Your task to perform on an android device: Open network settings Image 0: 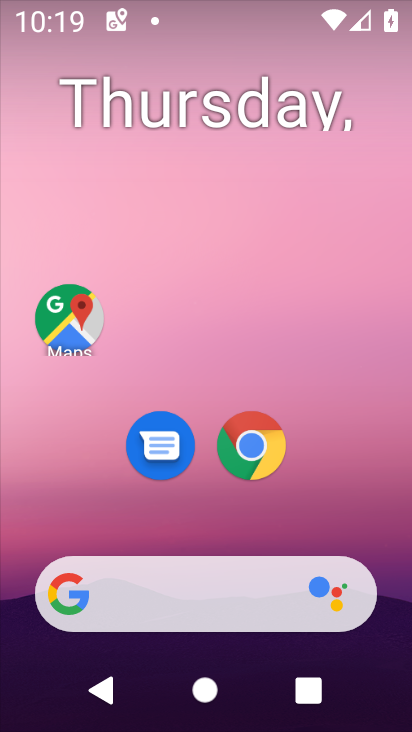
Step 0: drag from (319, 509) to (254, 86)
Your task to perform on an android device: Open network settings Image 1: 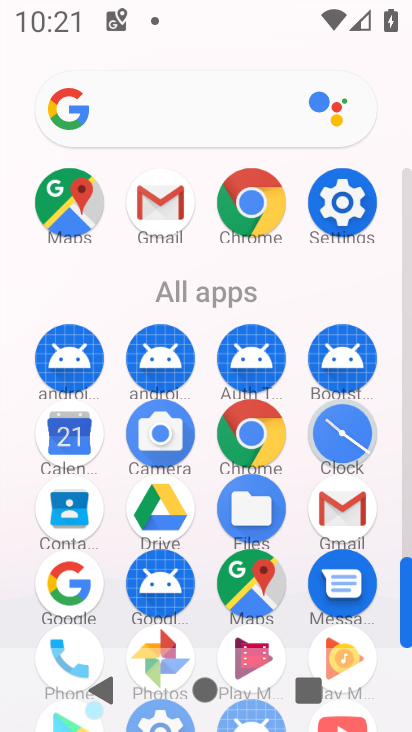
Step 1: click (361, 219)
Your task to perform on an android device: Open network settings Image 2: 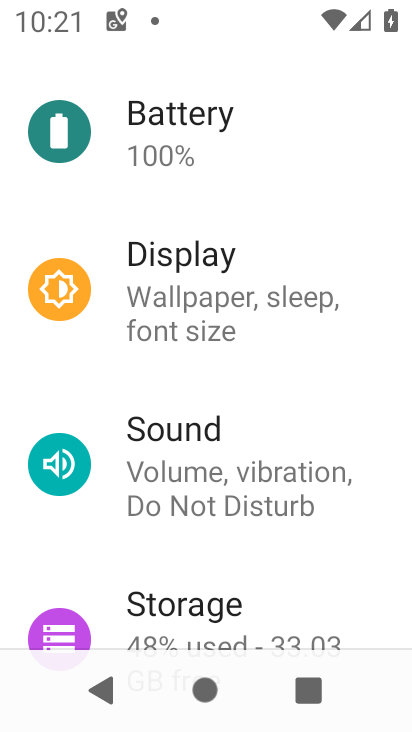
Step 2: drag from (261, 168) to (243, 594)
Your task to perform on an android device: Open network settings Image 3: 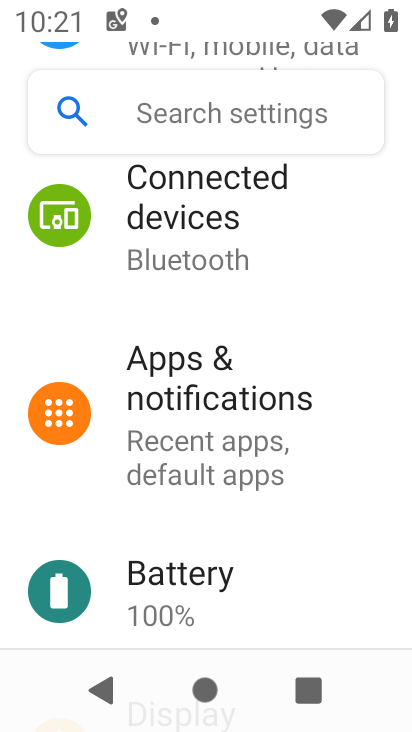
Step 3: drag from (200, 248) to (192, 611)
Your task to perform on an android device: Open network settings Image 4: 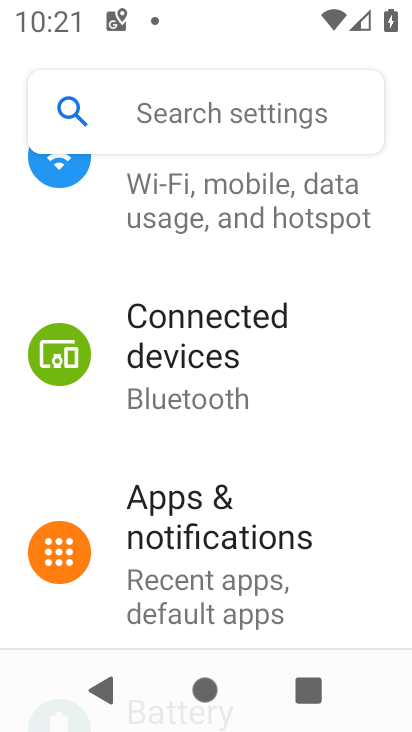
Step 4: click (174, 183)
Your task to perform on an android device: Open network settings Image 5: 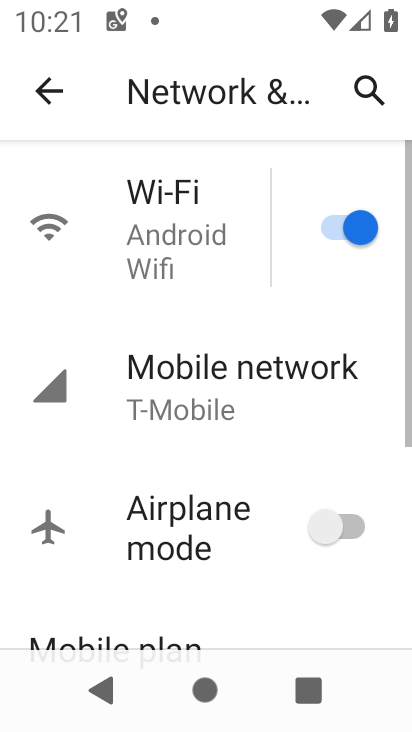
Step 5: click (149, 224)
Your task to perform on an android device: Open network settings Image 6: 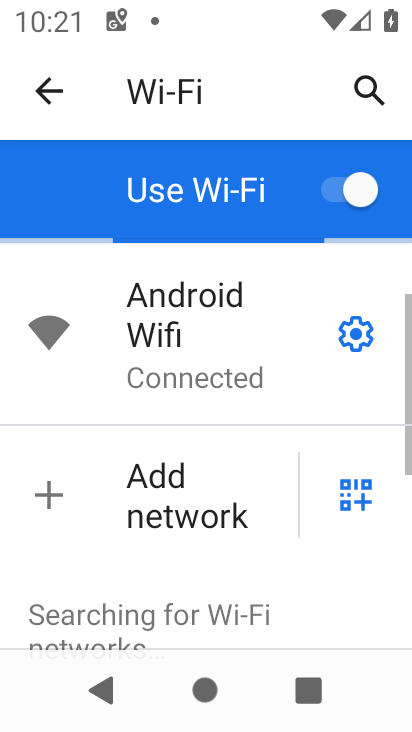
Step 6: task complete